Your task to perform on an android device: See recent photos Image 0: 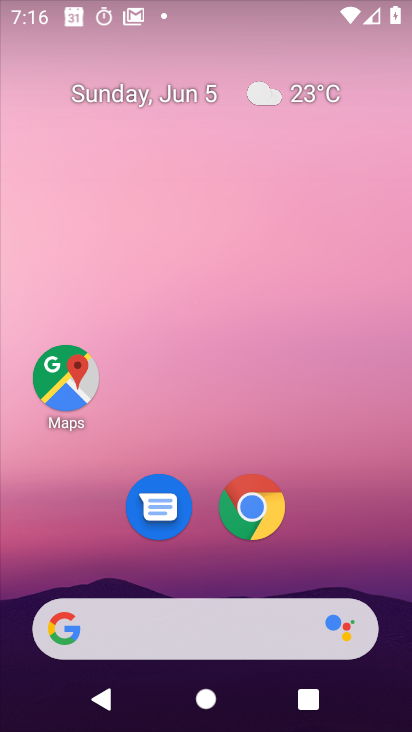
Step 0: drag from (277, 671) to (159, 82)
Your task to perform on an android device: See recent photos Image 1: 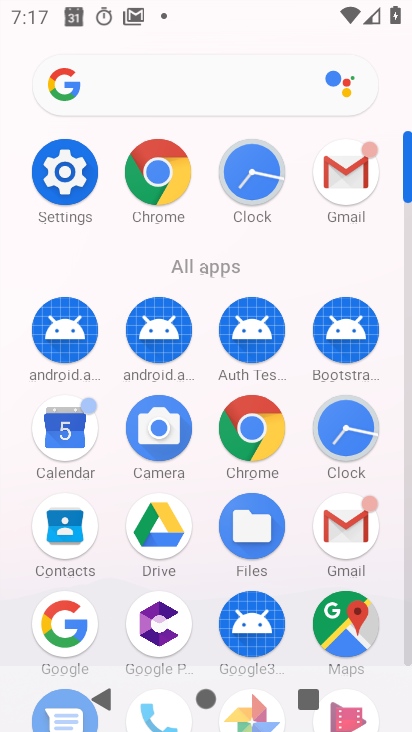
Step 1: drag from (218, 579) to (151, 380)
Your task to perform on an android device: See recent photos Image 2: 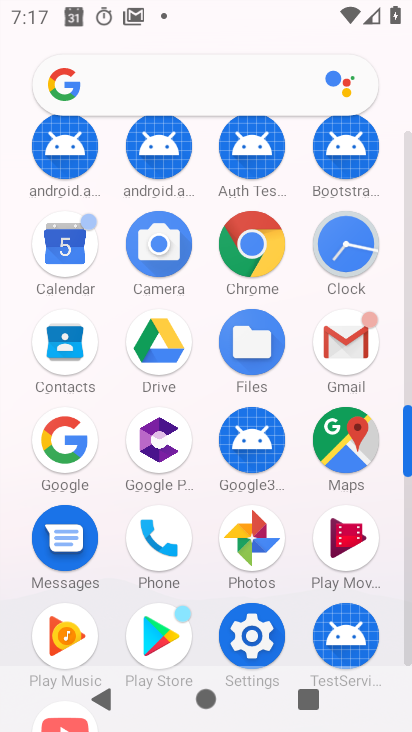
Step 2: click (235, 526)
Your task to perform on an android device: See recent photos Image 3: 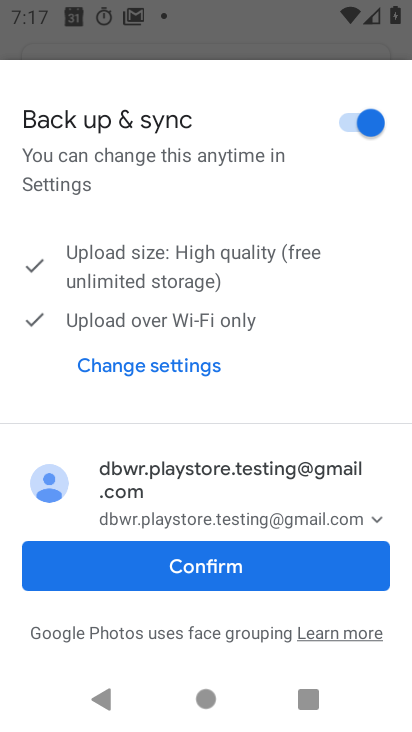
Step 3: click (170, 554)
Your task to perform on an android device: See recent photos Image 4: 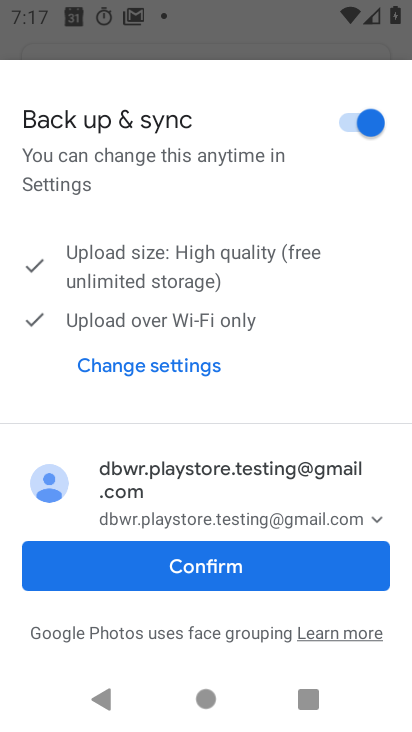
Step 4: click (172, 575)
Your task to perform on an android device: See recent photos Image 5: 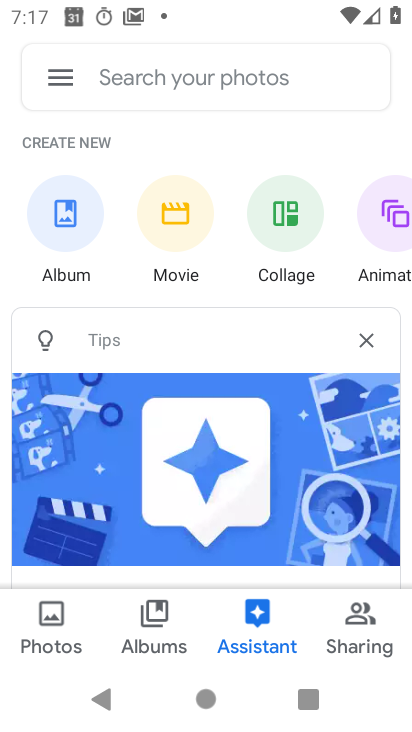
Step 5: click (63, 631)
Your task to perform on an android device: See recent photos Image 6: 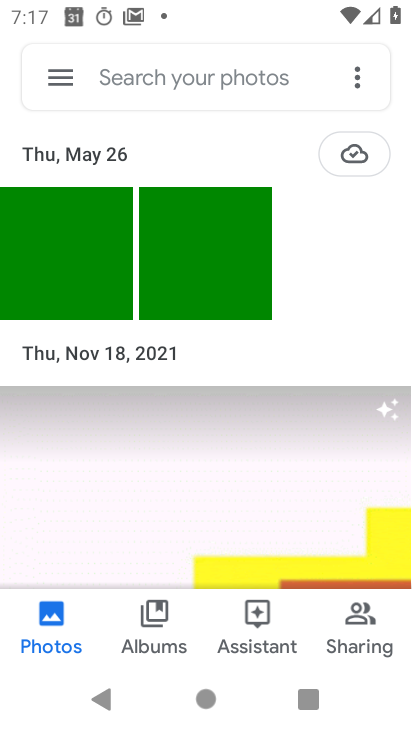
Step 6: task complete